Your task to perform on an android device: Search for pizza restaurants on Maps Image 0: 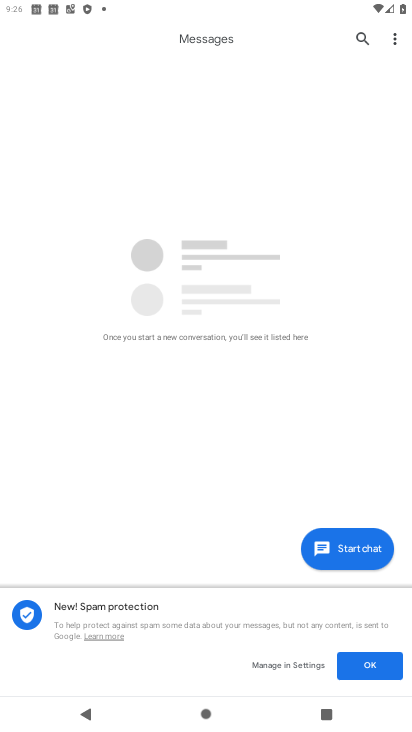
Step 0: press home button
Your task to perform on an android device: Search for pizza restaurants on Maps Image 1: 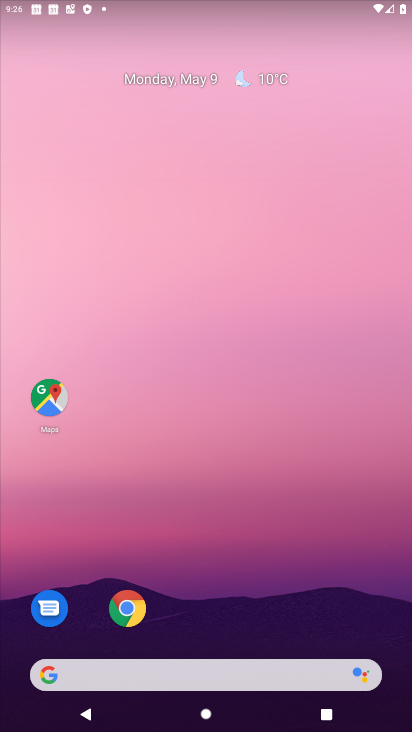
Step 1: drag from (328, 571) to (257, 39)
Your task to perform on an android device: Search for pizza restaurants on Maps Image 2: 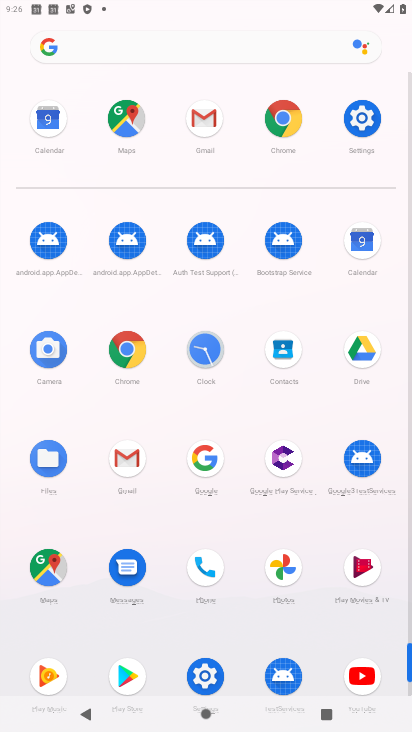
Step 2: click (124, 114)
Your task to perform on an android device: Search for pizza restaurants on Maps Image 3: 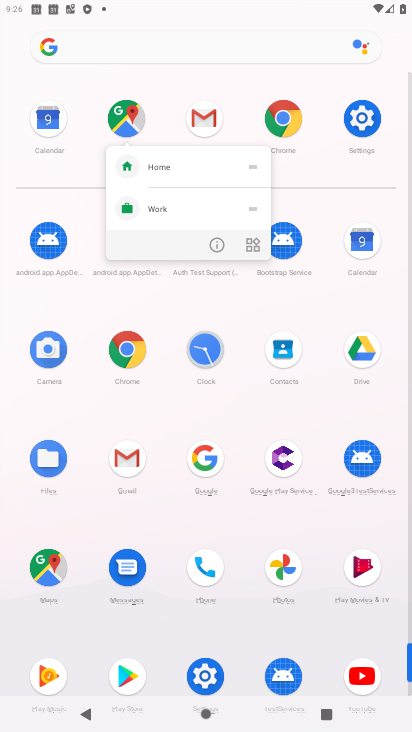
Step 3: click (124, 114)
Your task to perform on an android device: Search for pizza restaurants on Maps Image 4: 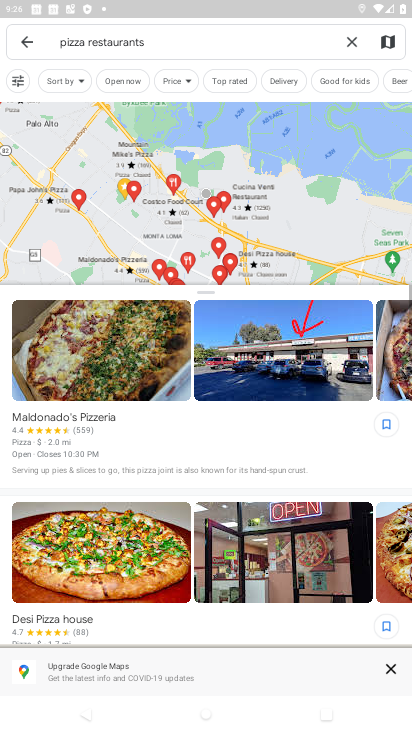
Step 4: click (354, 42)
Your task to perform on an android device: Search for pizza restaurants on Maps Image 5: 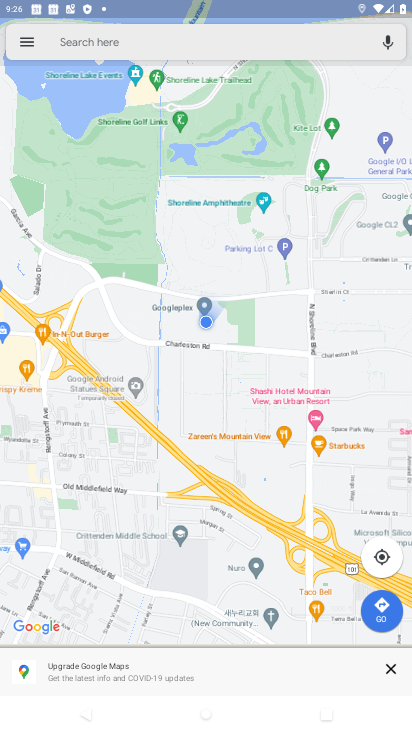
Step 5: click (280, 51)
Your task to perform on an android device: Search for pizza restaurants on Maps Image 6: 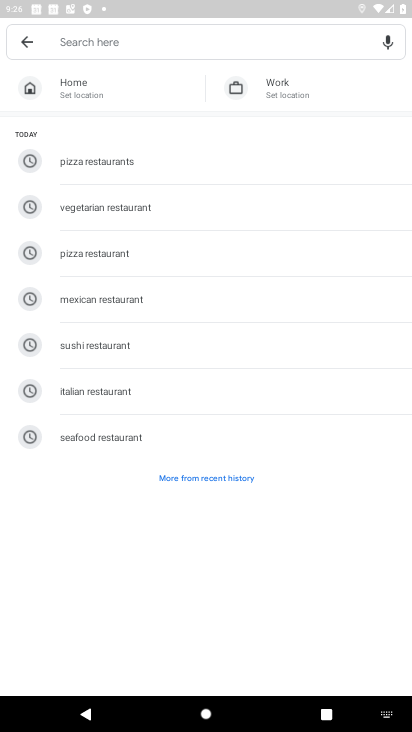
Step 6: click (135, 255)
Your task to perform on an android device: Search for pizza restaurants on Maps Image 7: 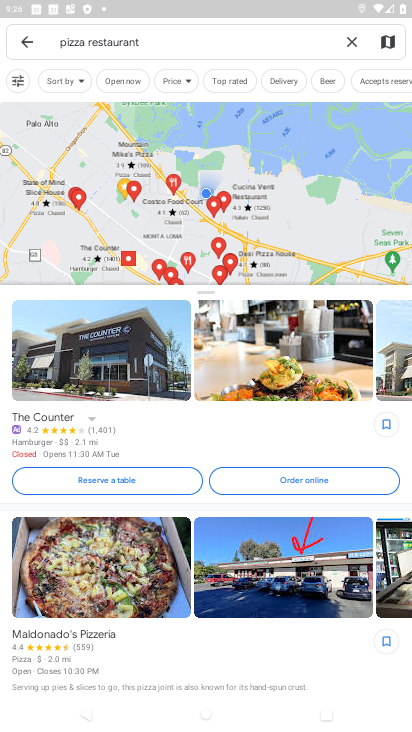
Step 7: task complete